Your task to perform on an android device: create a new album in the google photos Image 0: 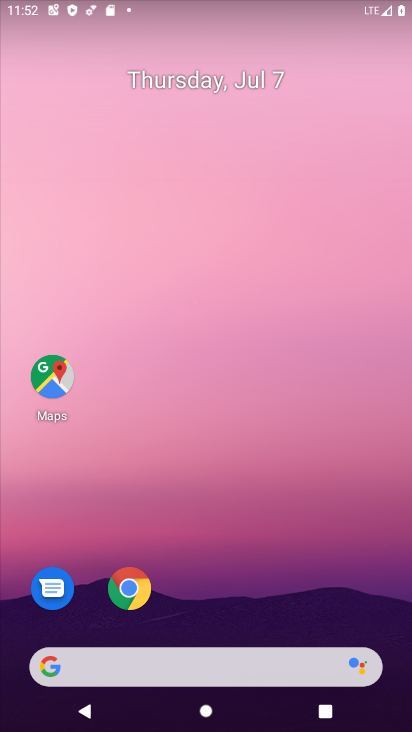
Step 0: drag from (208, 601) to (260, 145)
Your task to perform on an android device: create a new album in the google photos Image 1: 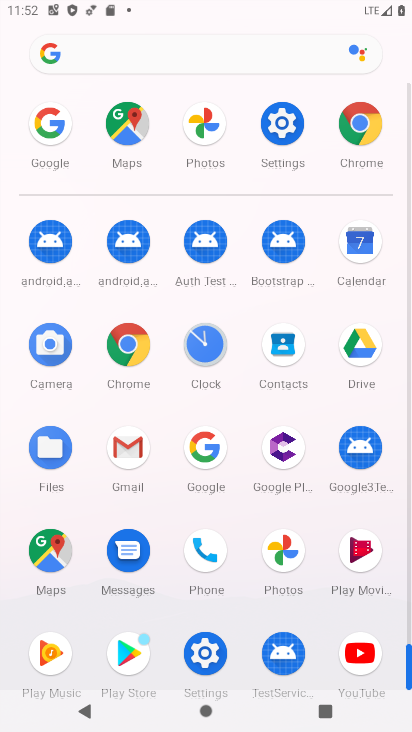
Step 1: click (285, 553)
Your task to perform on an android device: create a new album in the google photos Image 2: 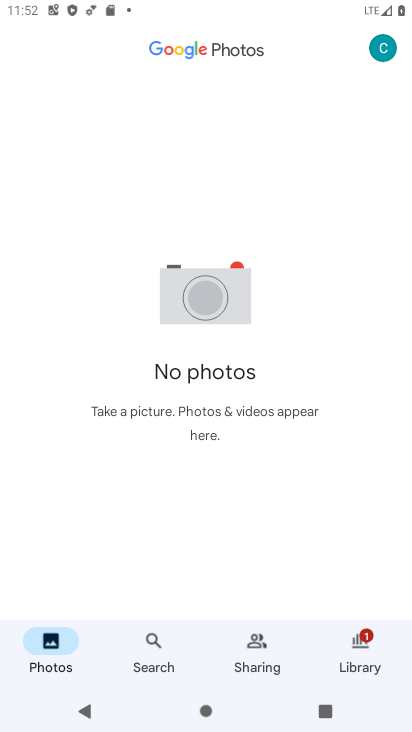
Step 2: drag from (360, 651) to (340, 414)
Your task to perform on an android device: create a new album in the google photos Image 3: 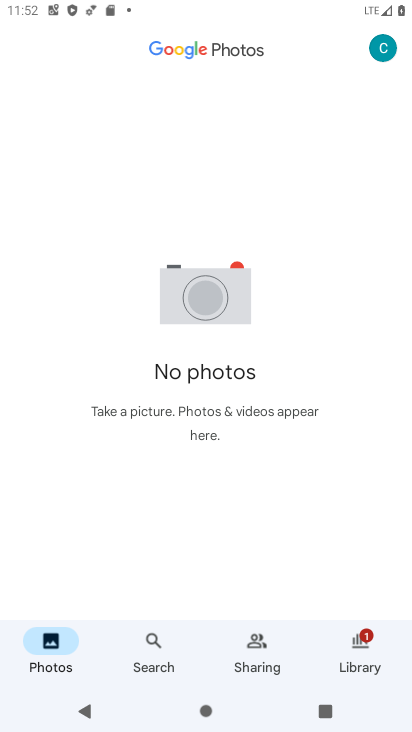
Step 3: click (361, 649)
Your task to perform on an android device: create a new album in the google photos Image 4: 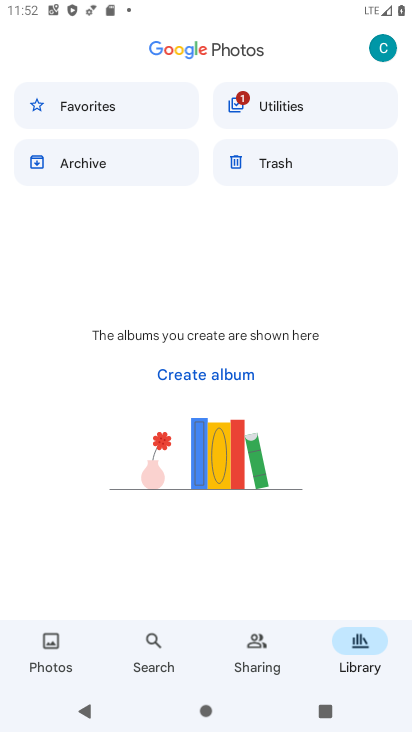
Step 4: click (210, 368)
Your task to perform on an android device: create a new album in the google photos Image 5: 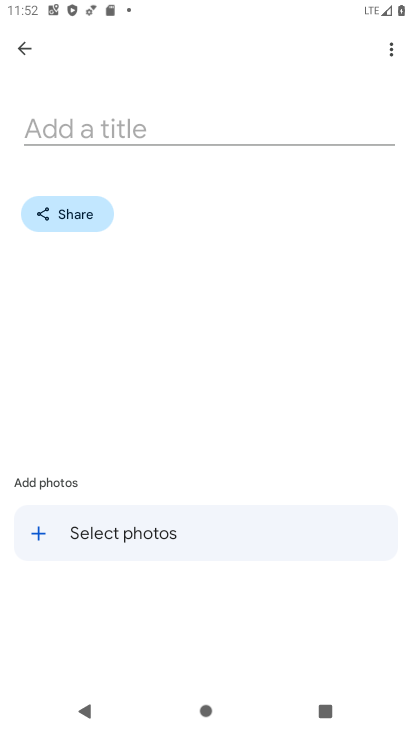
Step 5: click (159, 120)
Your task to perform on an android device: create a new album in the google photos Image 6: 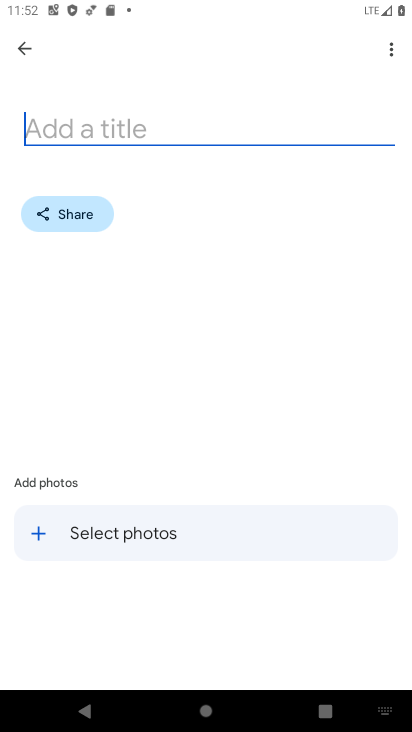
Step 6: type "jyjuadjhw"
Your task to perform on an android device: create a new album in the google photos Image 7: 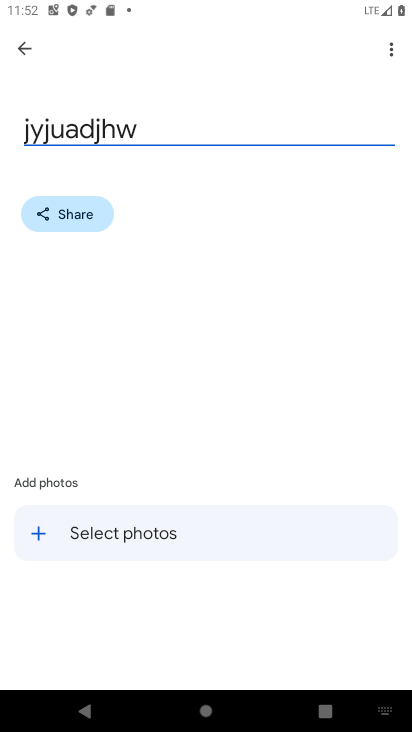
Step 7: click (34, 537)
Your task to perform on an android device: create a new album in the google photos Image 8: 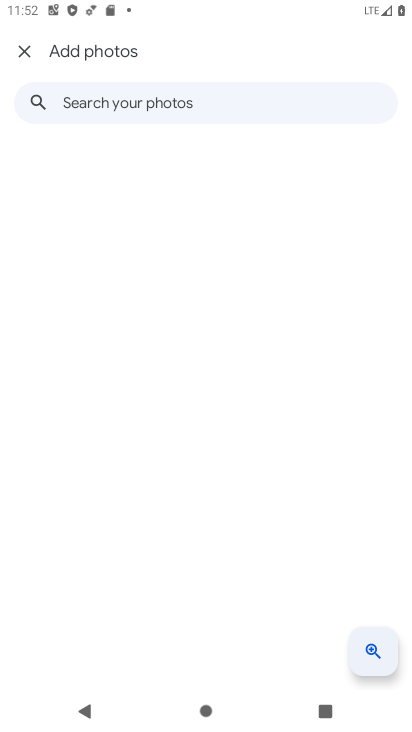
Step 8: task complete